Your task to perform on an android device: Open settings Image 0: 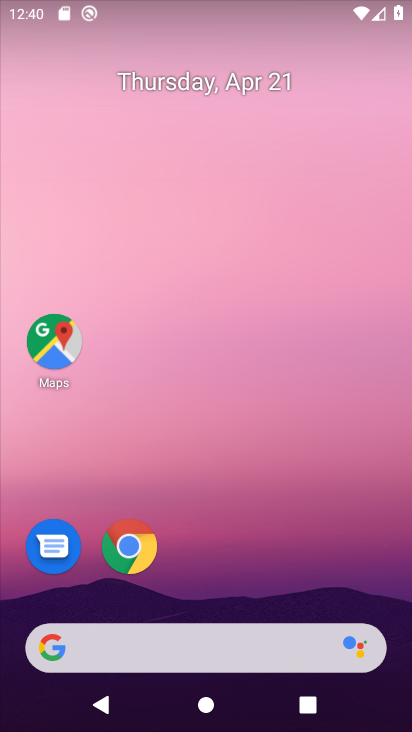
Step 0: drag from (199, 440) to (321, 71)
Your task to perform on an android device: Open settings Image 1: 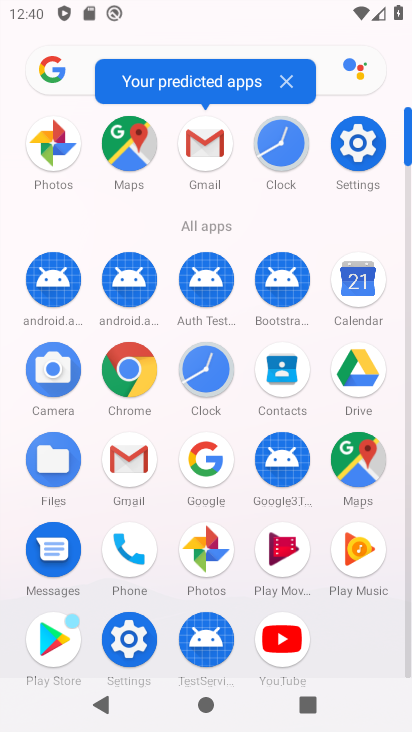
Step 1: click (353, 149)
Your task to perform on an android device: Open settings Image 2: 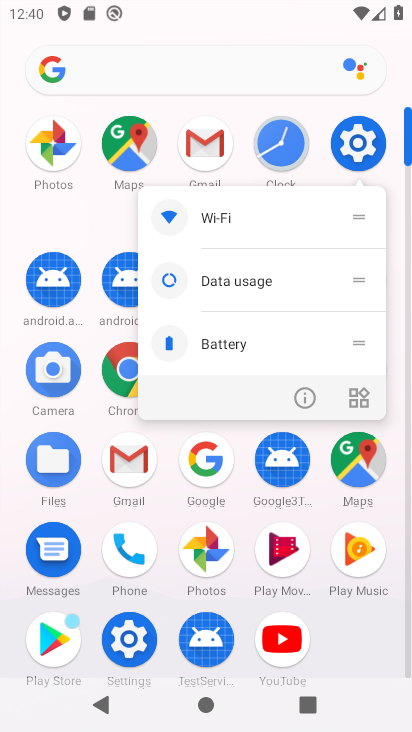
Step 2: click (353, 150)
Your task to perform on an android device: Open settings Image 3: 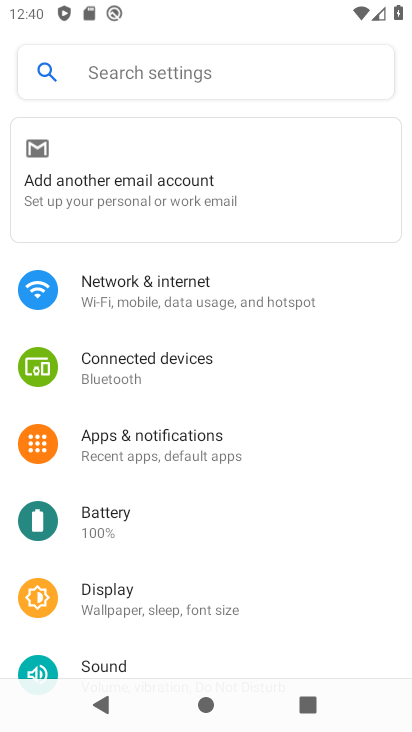
Step 3: task complete